Your task to perform on an android device: uninstall "File Manager" Image 0: 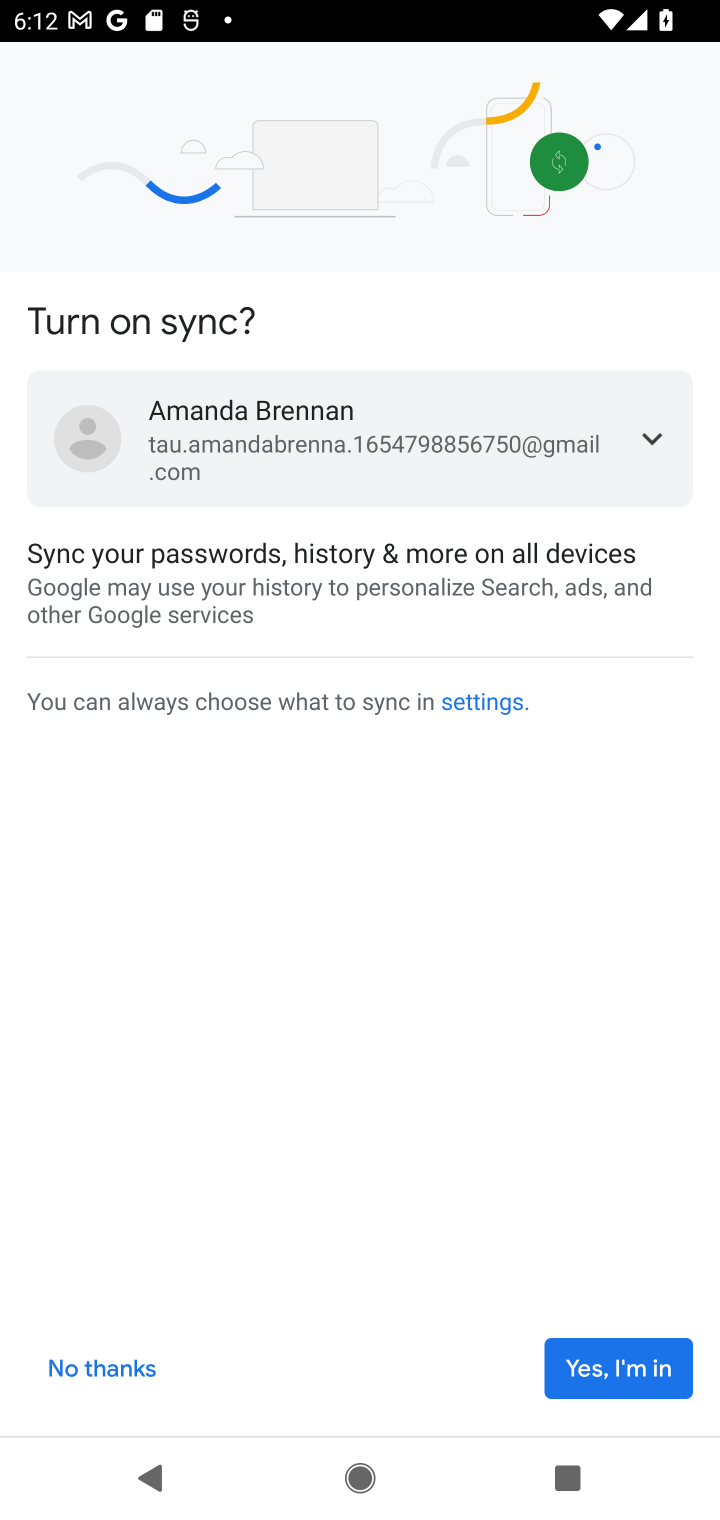
Step 0: press home button
Your task to perform on an android device: uninstall "File Manager" Image 1: 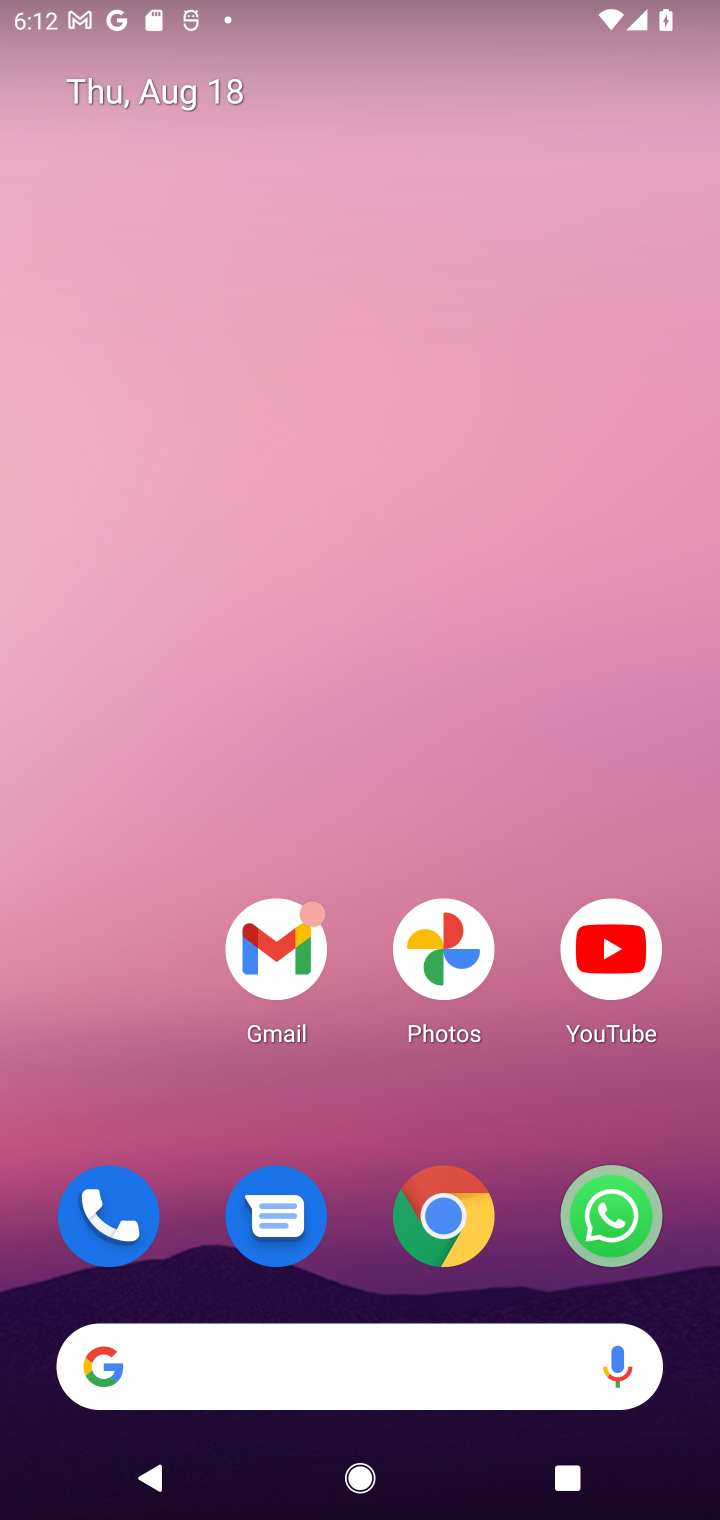
Step 1: drag from (526, 1276) to (483, 115)
Your task to perform on an android device: uninstall "File Manager" Image 2: 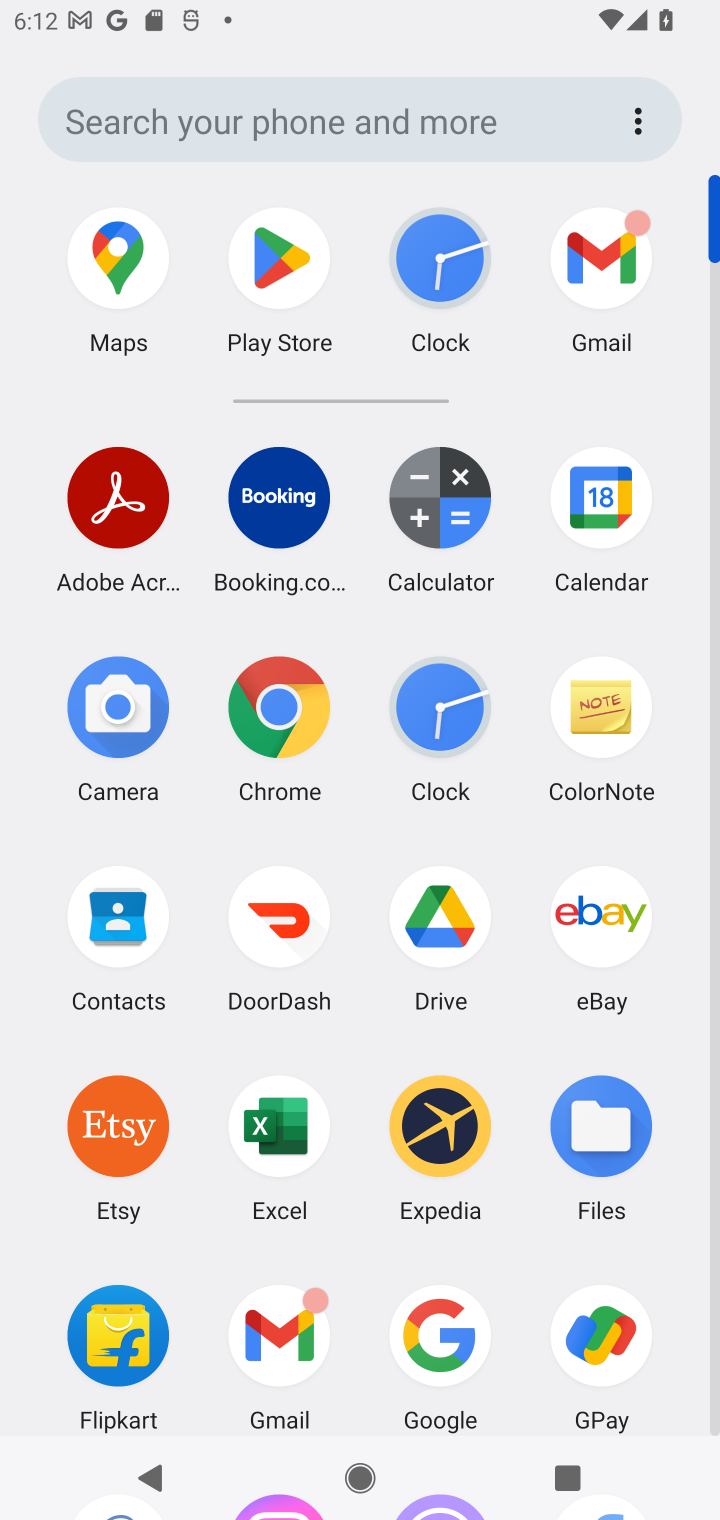
Step 2: drag from (521, 1260) to (516, 511)
Your task to perform on an android device: uninstall "File Manager" Image 3: 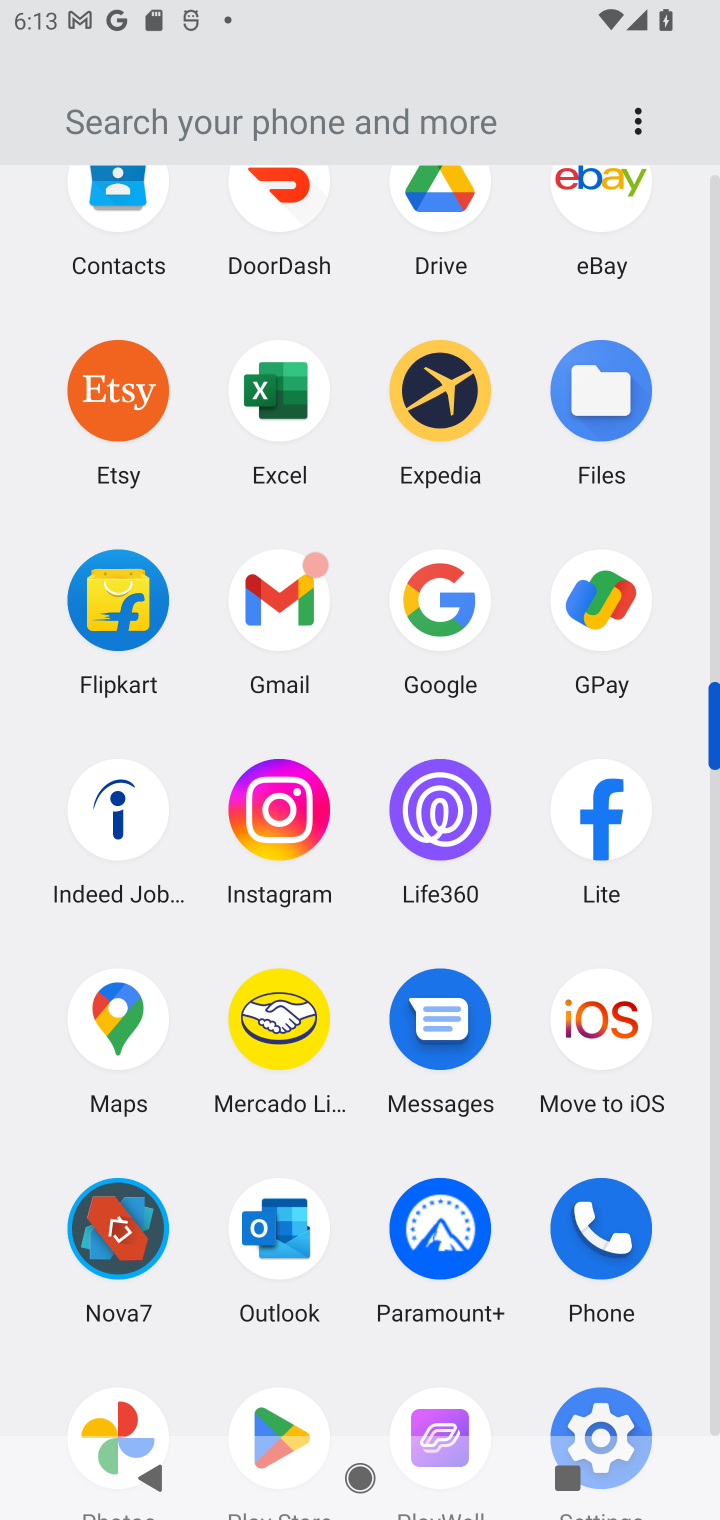
Step 3: click (264, 1411)
Your task to perform on an android device: uninstall "File Manager" Image 4: 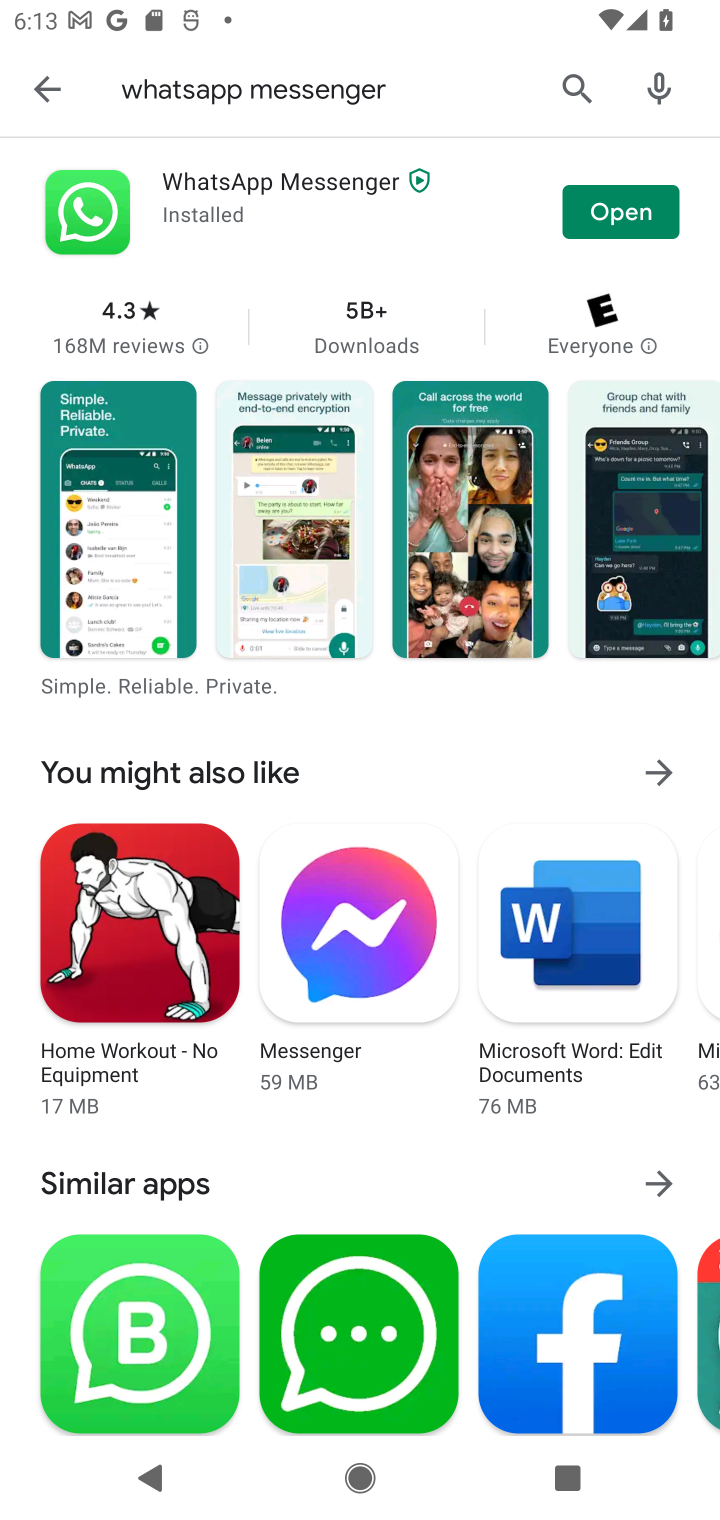
Step 4: click (575, 75)
Your task to perform on an android device: uninstall "File Manager" Image 5: 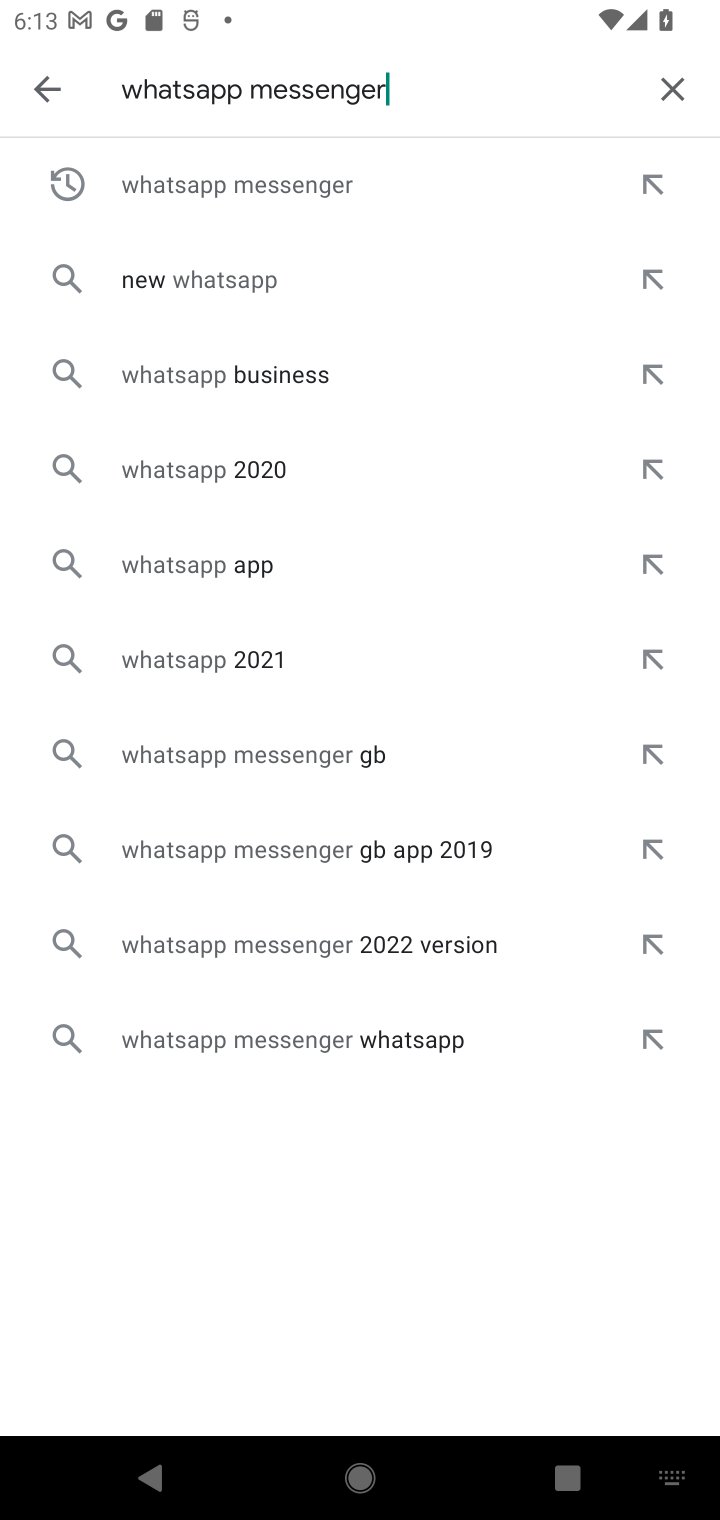
Step 5: click (667, 82)
Your task to perform on an android device: uninstall "File Manager" Image 6: 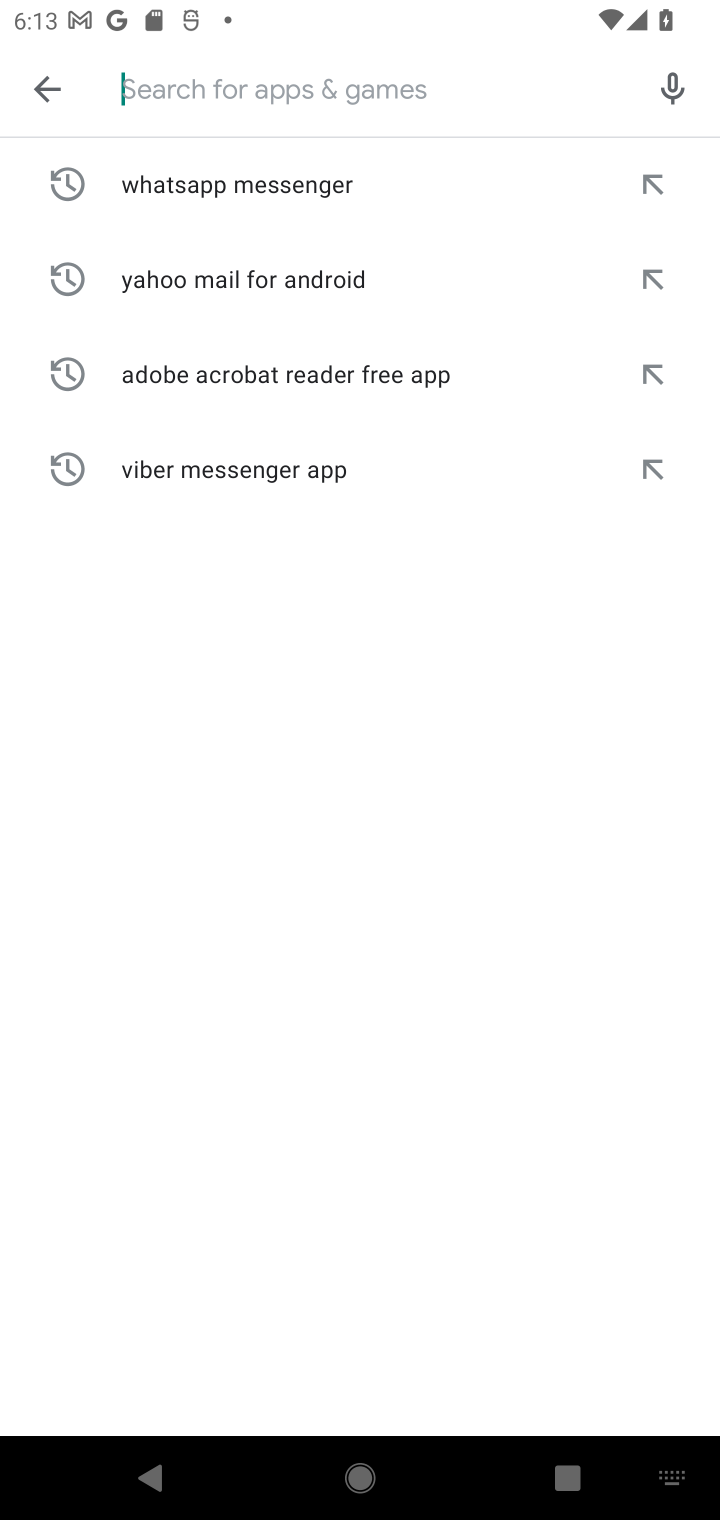
Step 6: type "file manager"
Your task to perform on an android device: uninstall "File Manager" Image 7: 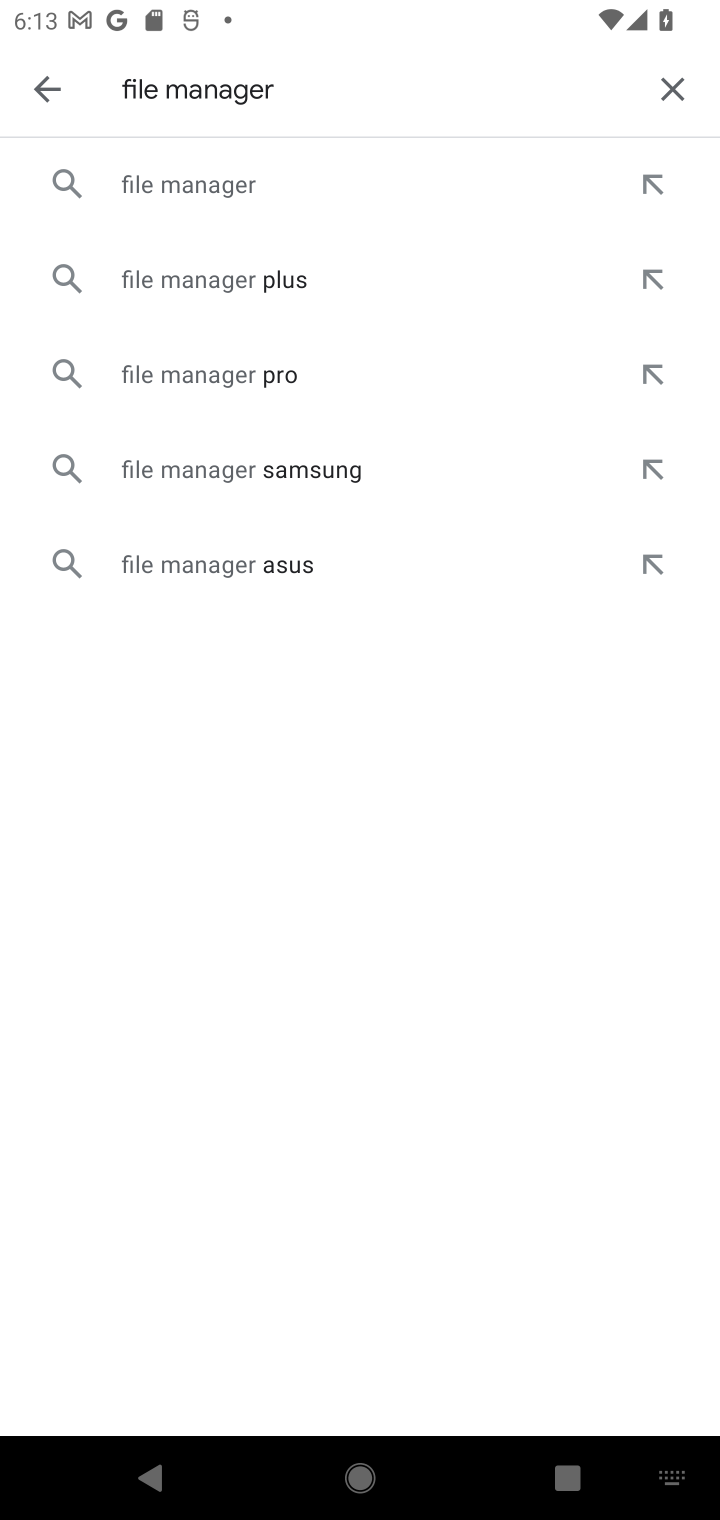
Step 7: click (149, 186)
Your task to perform on an android device: uninstall "File Manager" Image 8: 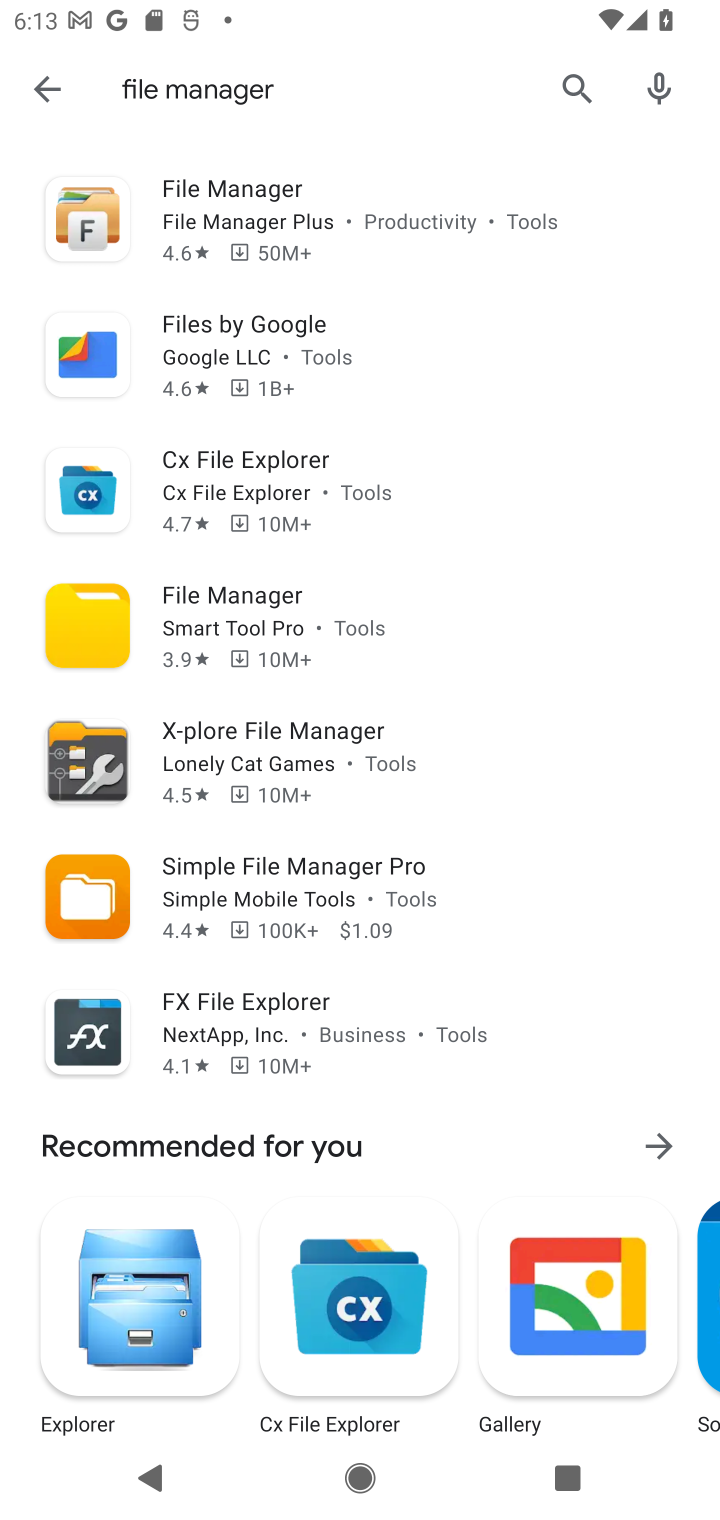
Step 8: click (223, 205)
Your task to perform on an android device: uninstall "File Manager" Image 9: 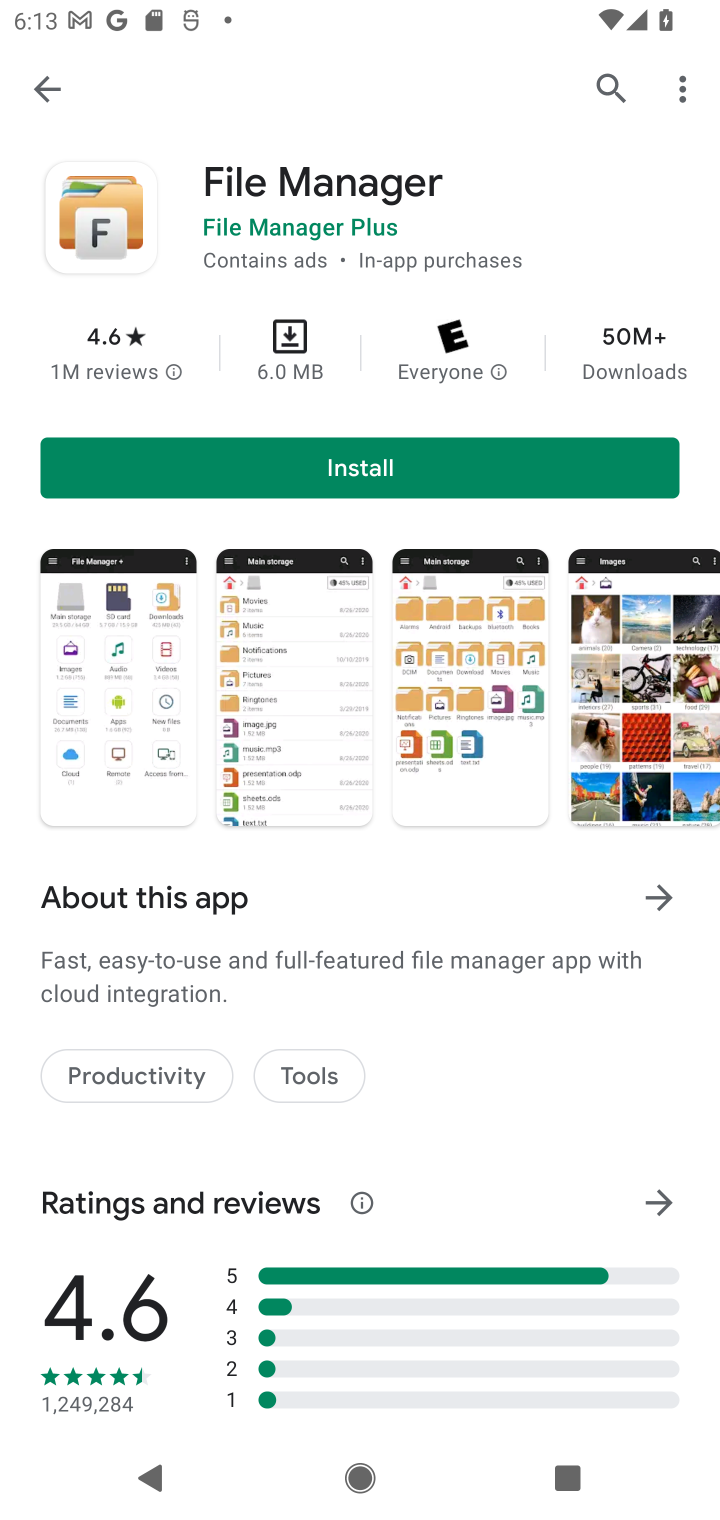
Step 9: task complete